Your task to perform on an android device: toggle notification dots Image 0: 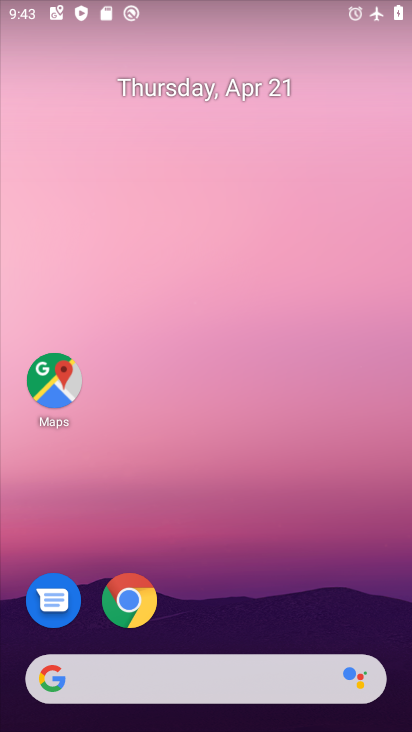
Step 0: drag from (232, 585) to (205, 27)
Your task to perform on an android device: toggle notification dots Image 1: 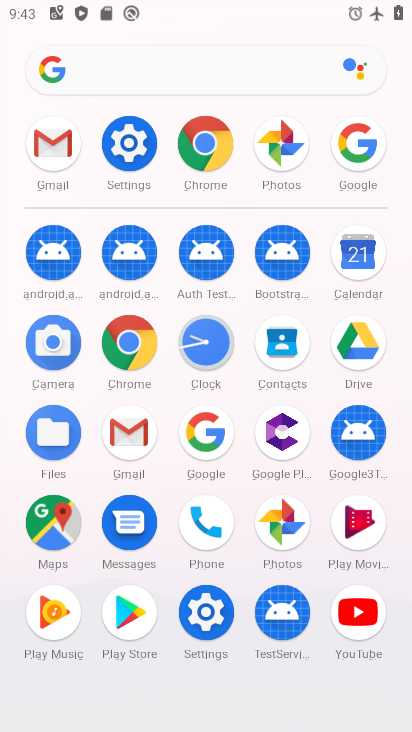
Step 1: click (130, 146)
Your task to perform on an android device: toggle notification dots Image 2: 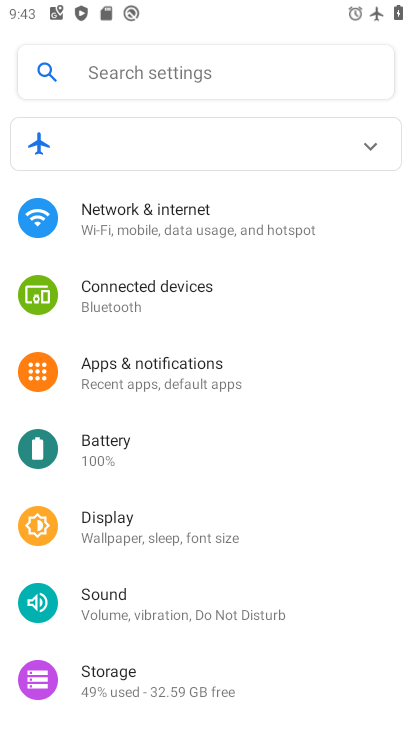
Step 2: drag from (229, 596) to (211, 314)
Your task to perform on an android device: toggle notification dots Image 3: 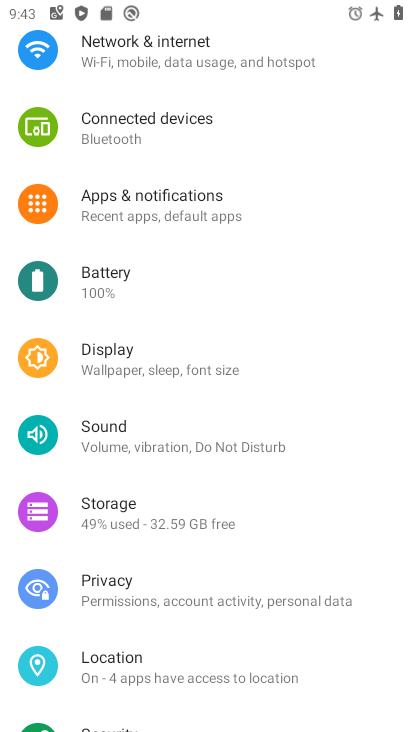
Step 3: click (146, 209)
Your task to perform on an android device: toggle notification dots Image 4: 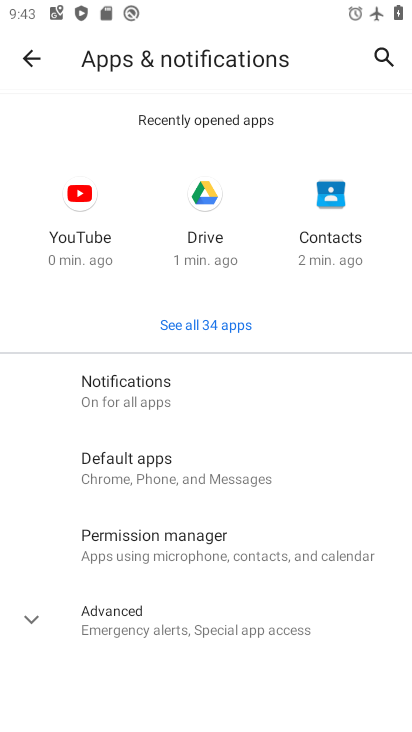
Step 4: click (182, 389)
Your task to perform on an android device: toggle notification dots Image 5: 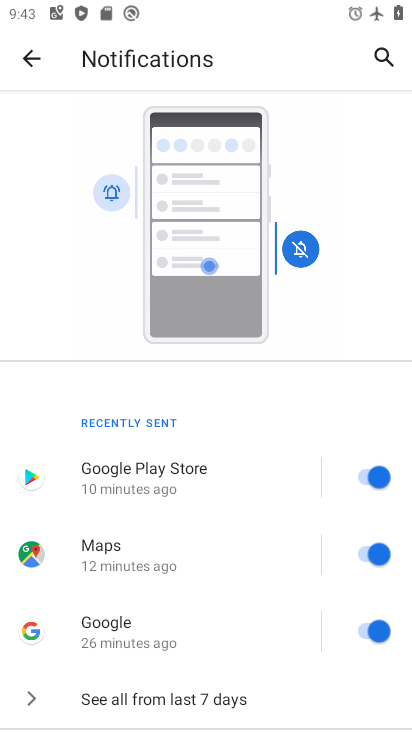
Step 5: drag from (230, 621) to (231, 201)
Your task to perform on an android device: toggle notification dots Image 6: 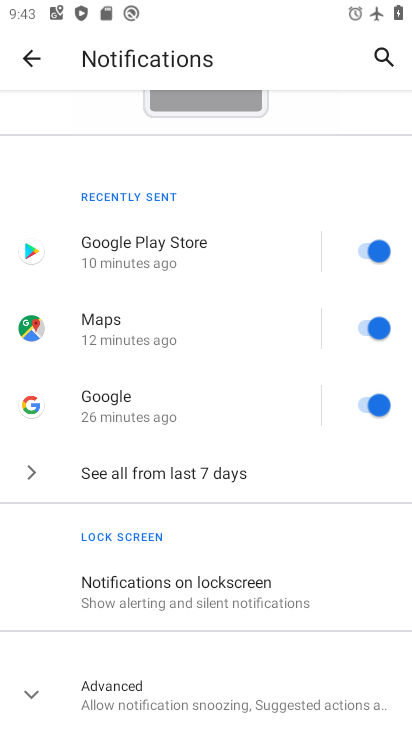
Step 6: click (105, 699)
Your task to perform on an android device: toggle notification dots Image 7: 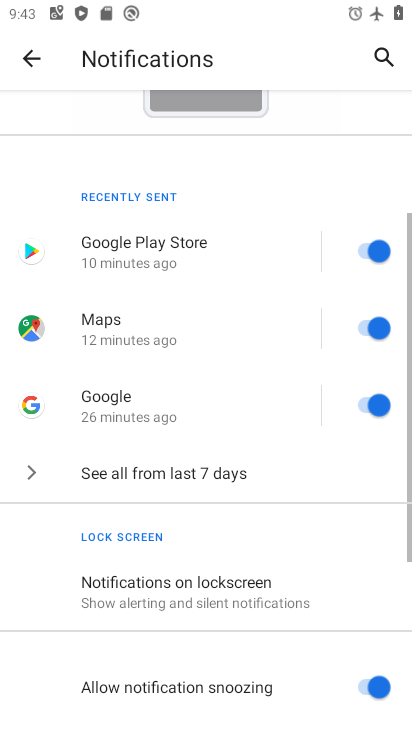
Step 7: drag from (222, 589) to (242, 243)
Your task to perform on an android device: toggle notification dots Image 8: 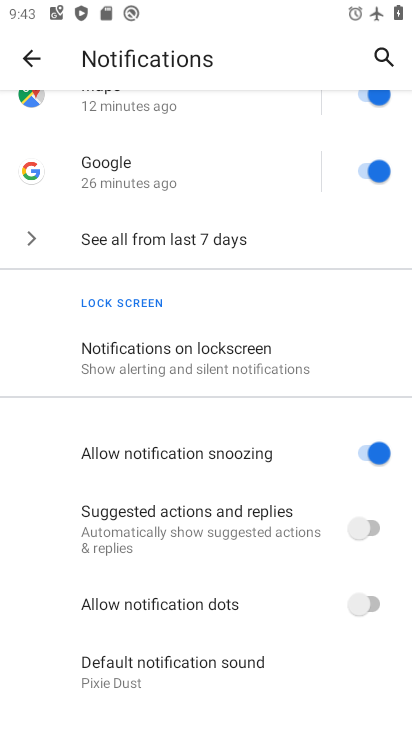
Step 8: click (356, 605)
Your task to perform on an android device: toggle notification dots Image 9: 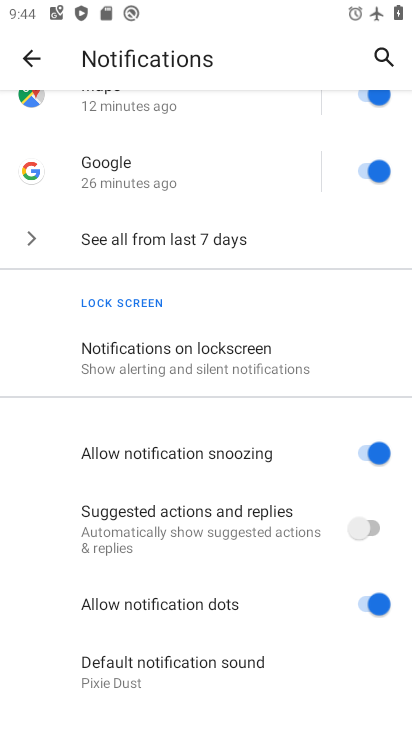
Step 9: task complete